Your task to perform on an android device: Go to Wikipedia Image 0: 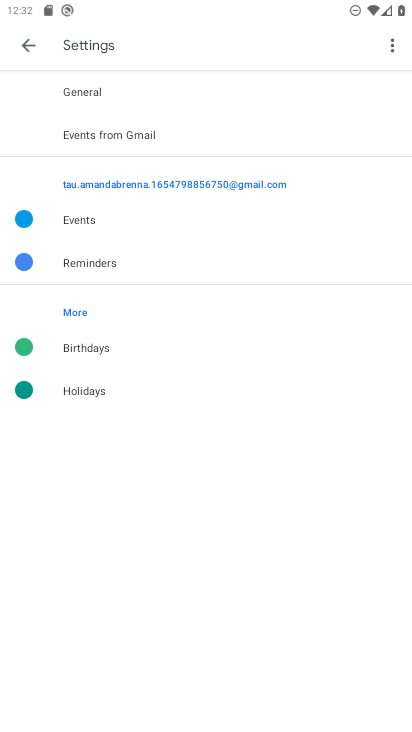
Step 0: press home button
Your task to perform on an android device: Go to Wikipedia Image 1: 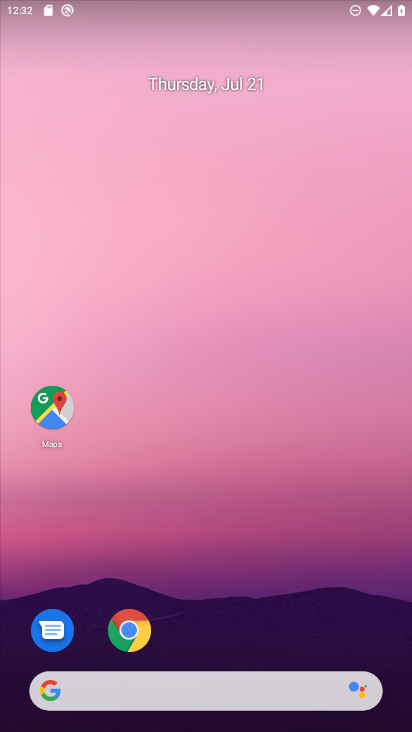
Step 1: click (135, 632)
Your task to perform on an android device: Go to Wikipedia Image 2: 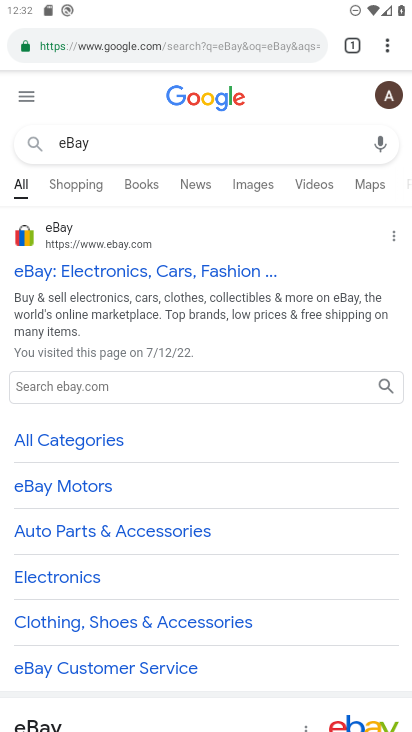
Step 2: click (315, 46)
Your task to perform on an android device: Go to Wikipedia Image 3: 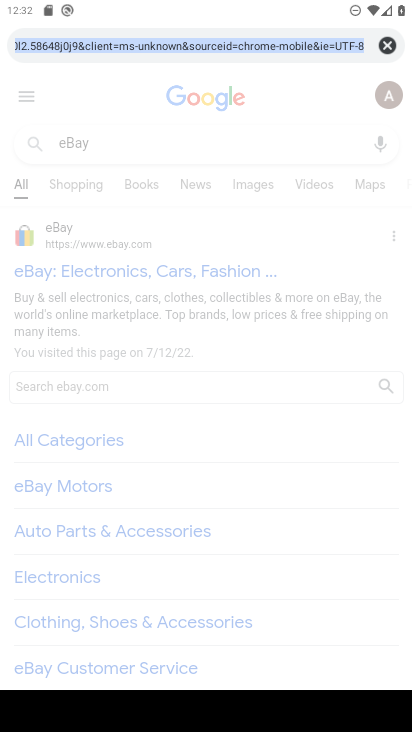
Step 3: click (389, 45)
Your task to perform on an android device: Go to Wikipedia Image 4: 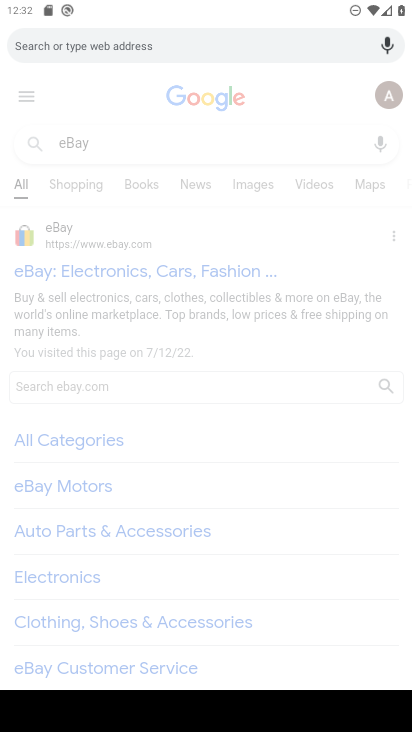
Step 4: type " Wikipedia"
Your task to perform on an android device: Go to Wikipedia Image 5: 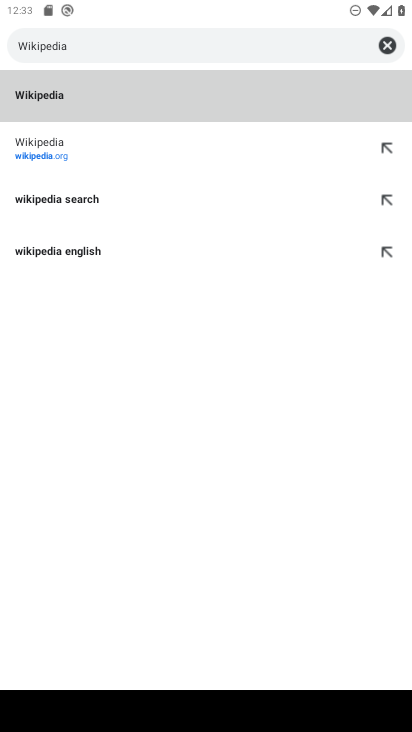
Step 5: click (188, 82)
Your task to perform on an android device: Go to Wikipedia Image 6: 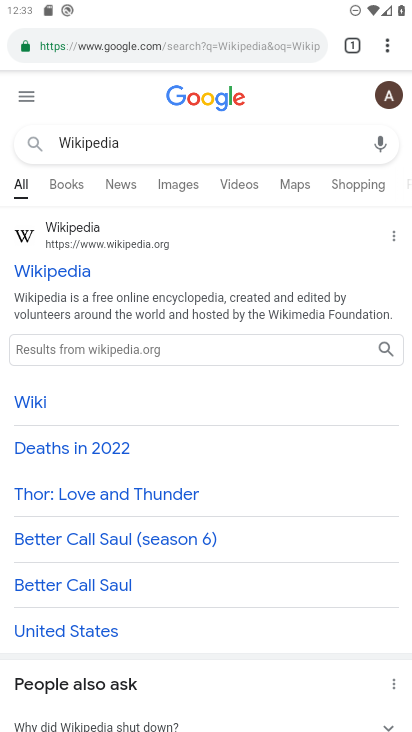
Step 6: task complete